Your task to perform on an android device: Open Amazon Image 0: 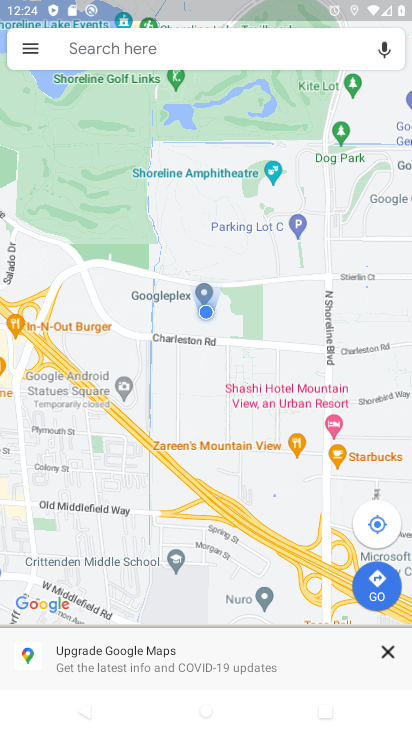
Step 0: press home button
Your task to perform on an android device: Open Amazon Image 1: 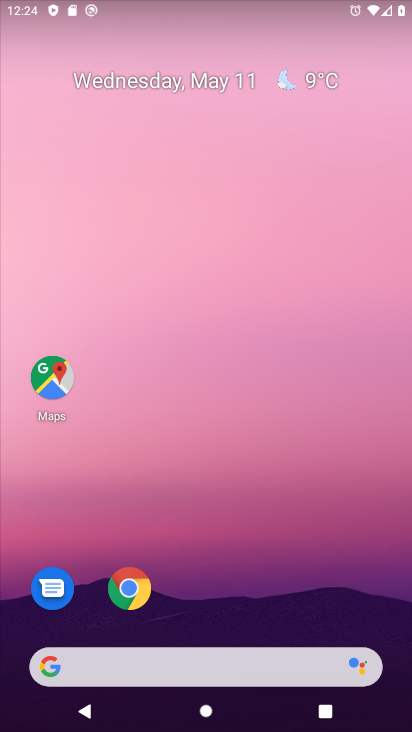
Step 1: click (133, 583)
Your task to perform on an android device: Open Amazon Image 2: 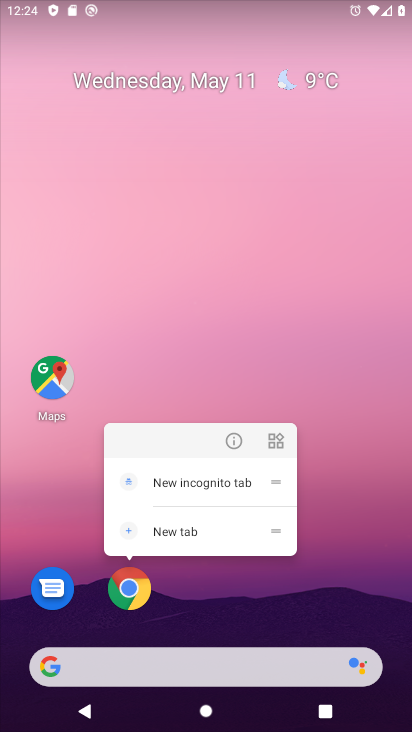
Step 2: click (122, 595)
Your task to perform on an android device: Open Amazon Image 3: 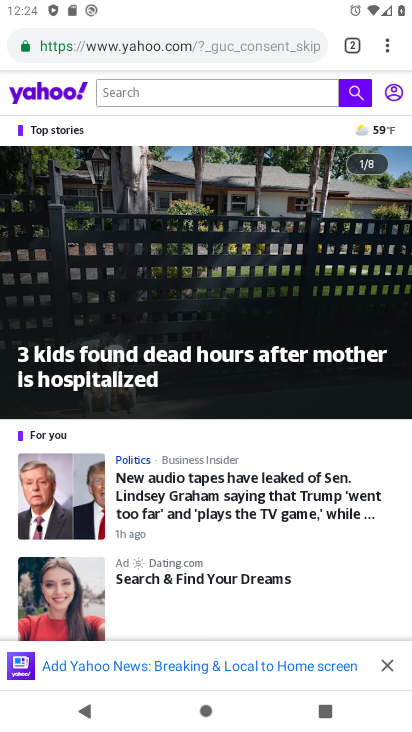
Step 3: click (120, 47)
Your task to perform on an android device: Open Amazon Image 4: 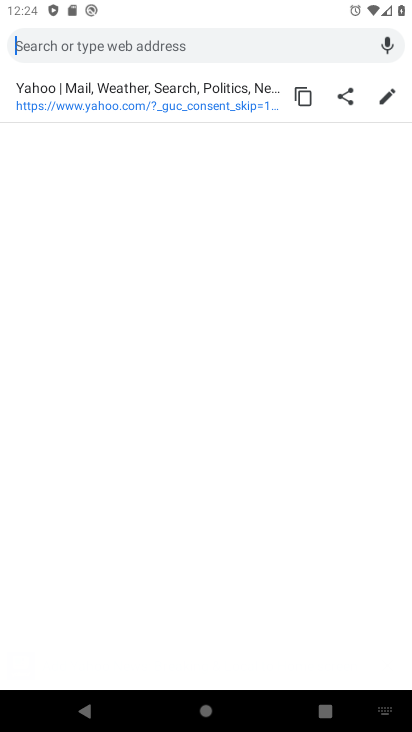
Step 4: type "amazon"
Your task to perform on an android device: Open Amazon Image 5: 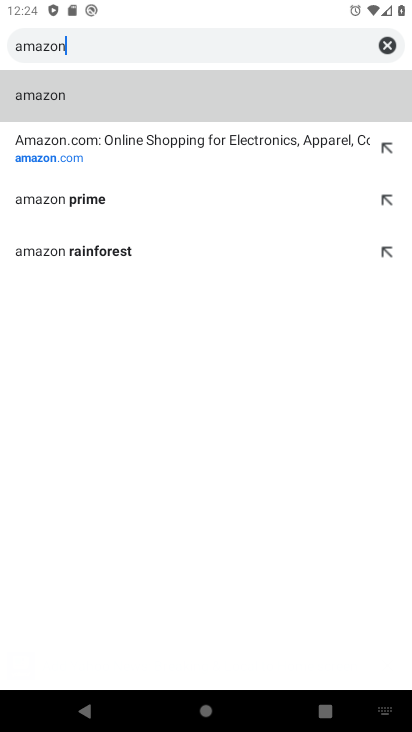
Step 5: click (52, 99)
Your task to perform on an android device: Open Amazon Image 6: 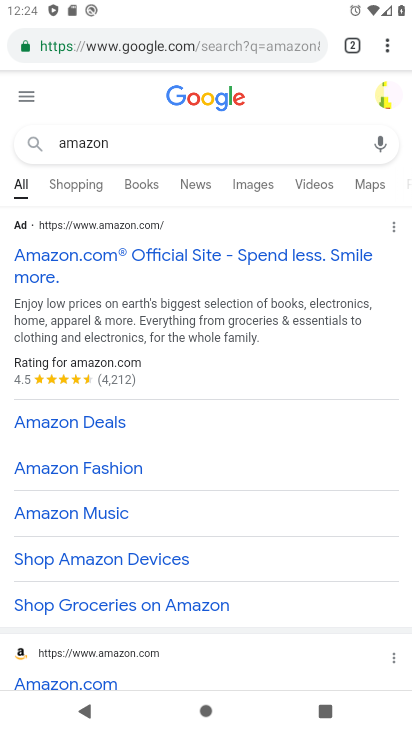
Step 6: click (29, 262)
Your task to perform on an android device: Open Amazon Image 7: 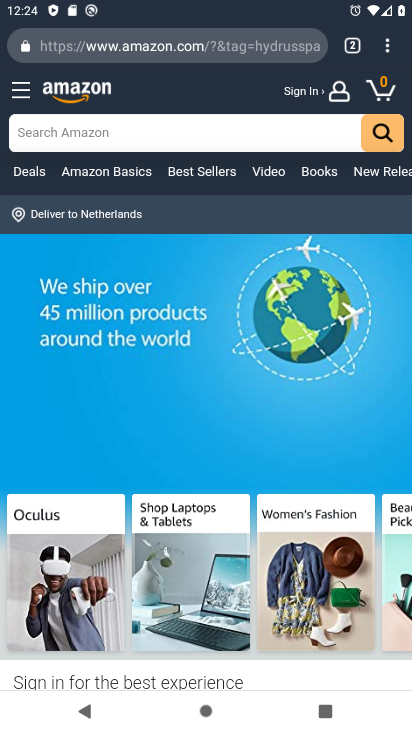
Step 7: task complete